Your task to perform on an android device: toggle sleep mode Image 0: 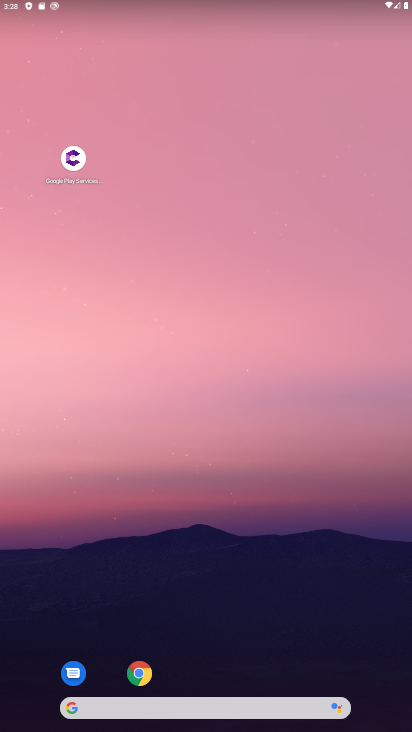
Step 0: drag from (194, 675) to (242, 292)
Your task to perform on an android device: toggle sleep mode Image 1: 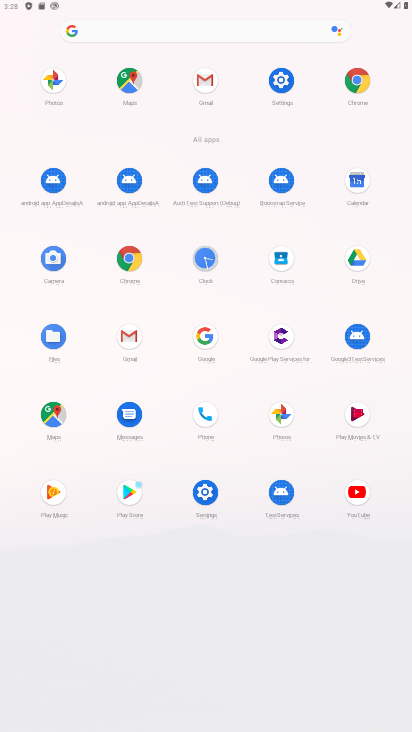
Step 1: click (207, 496)
Your task to perform on an android device: toggle sleep mode Image 2: 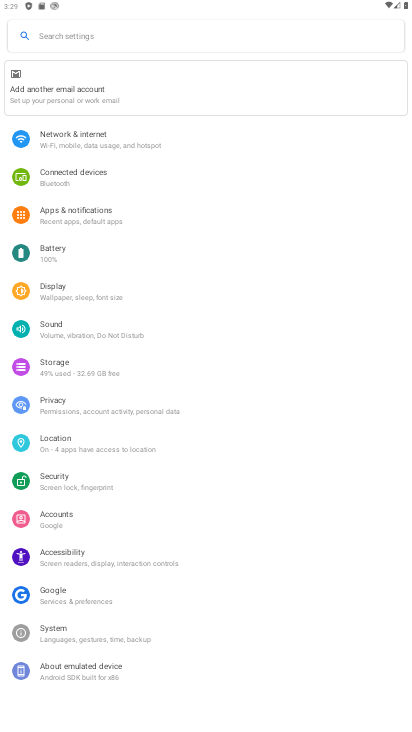
Step 2: click (94, 294)
Your task to perform on an android device: toggle sleep mode Image 3: 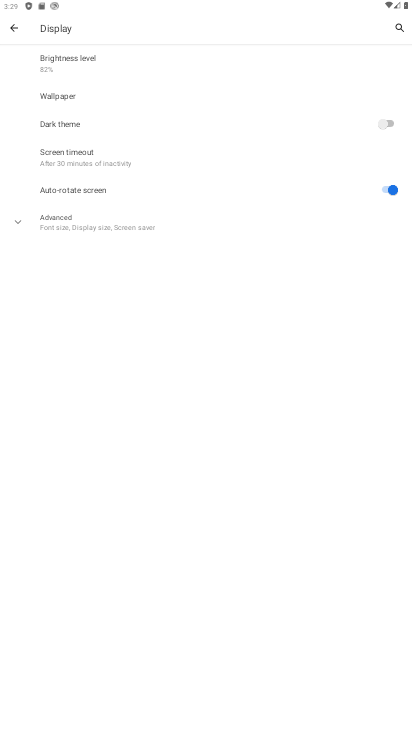
Step 3: click (135, 229)
Your task to perform on an android device: toggle sleep mode Image 4: 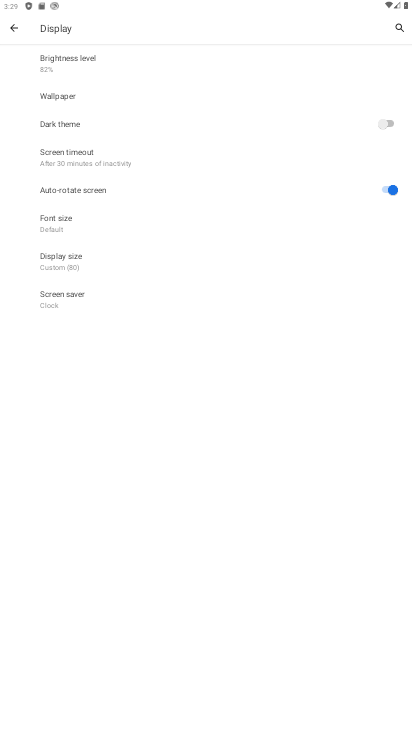
Step 4: task complete